Your task to perform on an android device: Go to privacy settings Image 0: 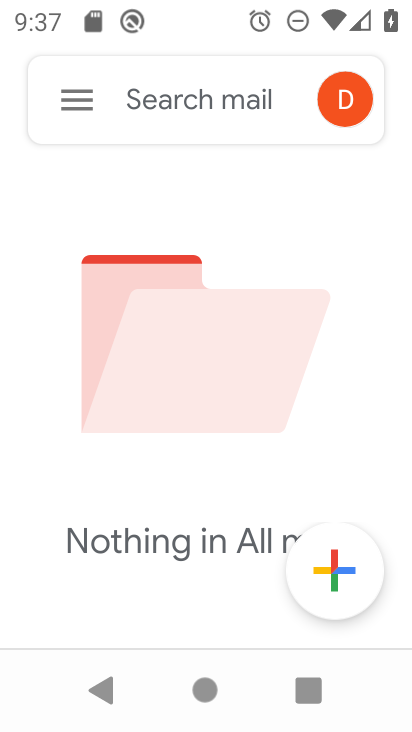
Step 0: press home button
Your task to perform on an android device: Go to privacy settings Image 1: 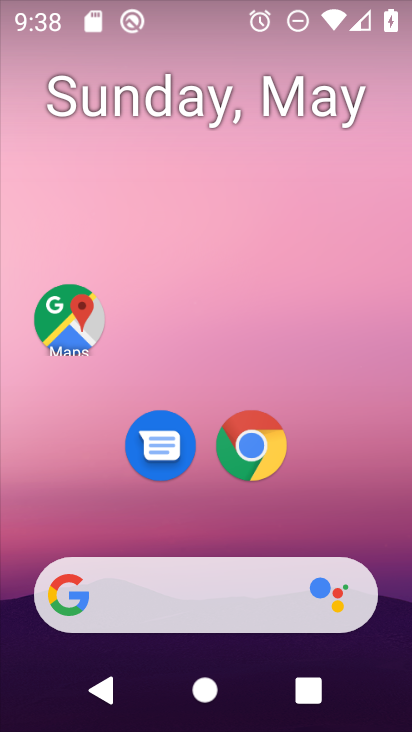
Step 1: drag from (338, 595) to (382, 179)
Your task to perform on an android device: Go to privacy settings Image 2: 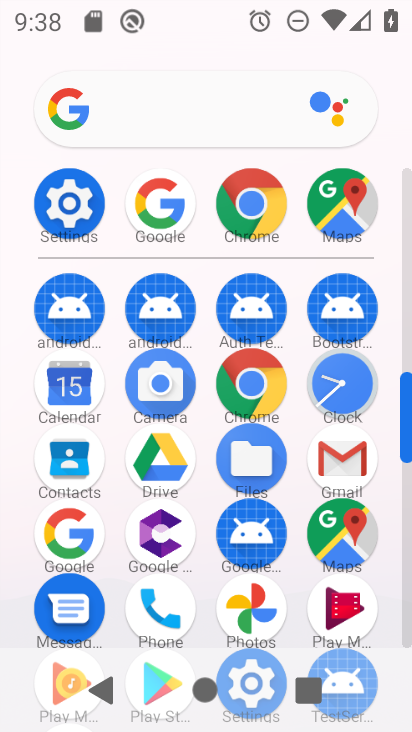
Step 2: click (82, 195)
Your task to perform on an android device: Go to privacy settings Image 3: 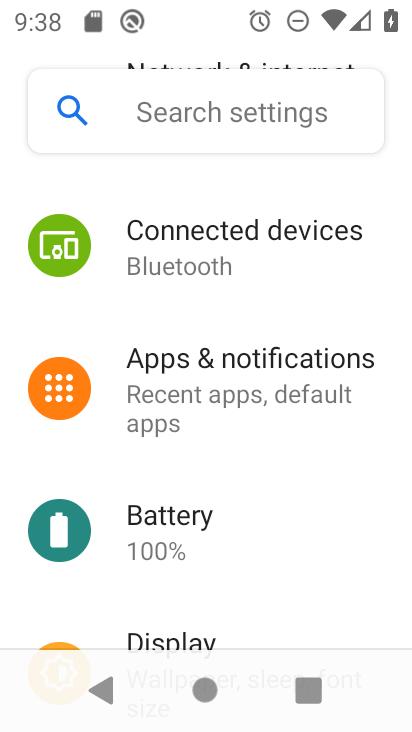
Step 3: drag from (210, 372) to (207, 297)
Your task to perform on an android device: Go to privacy settings Image 4: 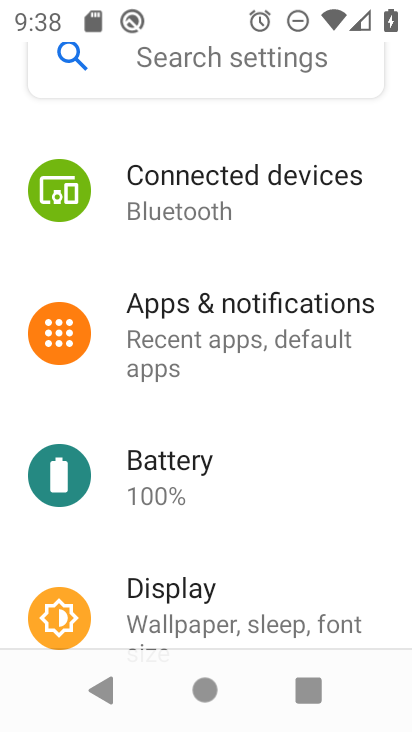
Step 4: drag from (212, 412) to (220, 294)
Your task to perform on an android device: Go to privacy settings Image 5: 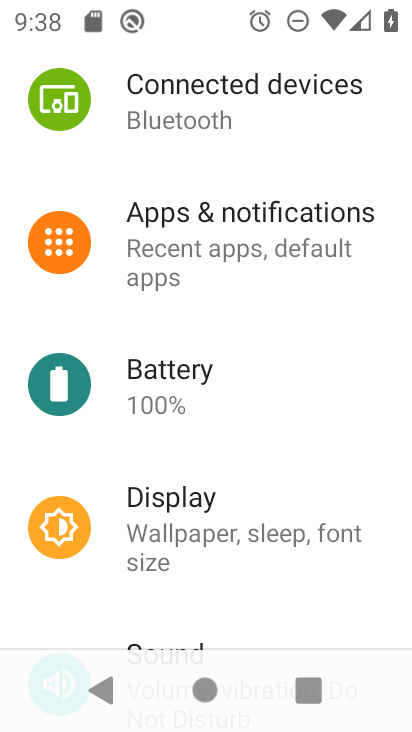
Step 5: drag from (224, 505) to (218, 352)
Your task to perform on an android device: Go to privacy settings Image 6: 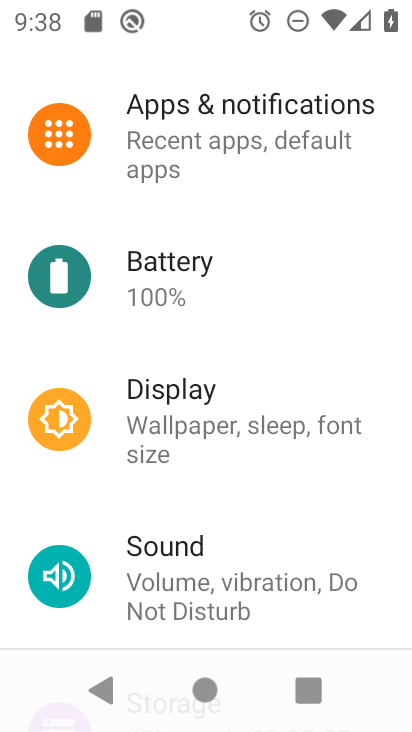
Step 6: drag from (223, 478) to (235, 292)
Your task to perform on an android device: Go to privacy settings Image 7: 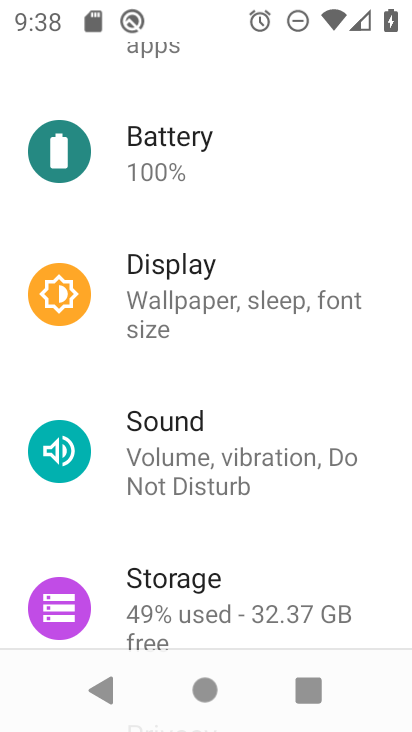
Step 7: drag from (227, 460) to (226, 354)
Your task to perform on an android device: Go to privacy settings Image 8: 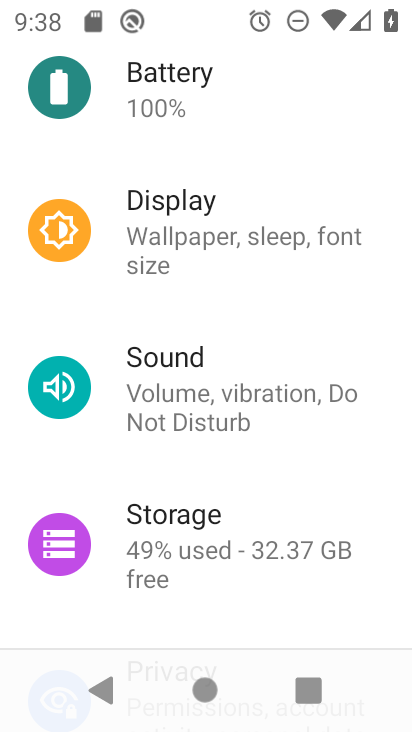
Step 8: drag from (225, 433) to (224, 353)
Your task to perform on an android device: Go to privacy settings Image 9: 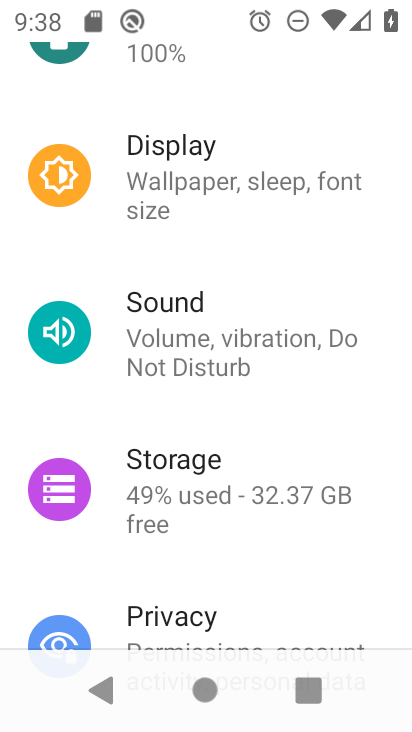
Step 9: drag from (232, 455) to (246, 263)
Your task to perform on an android device: Go to privacy settings Image 10: 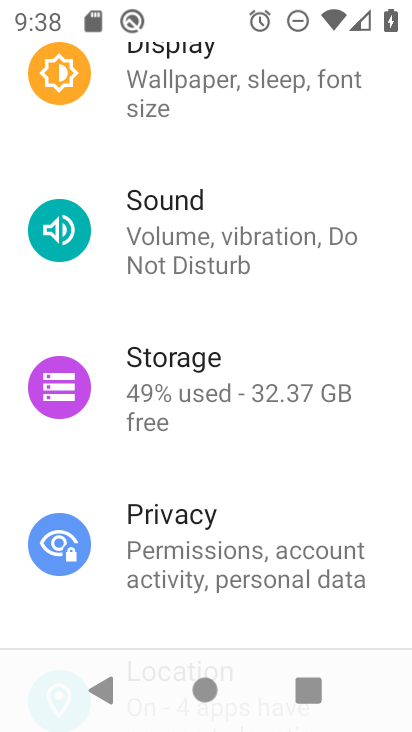
Step 10: click (215, 522)
Your task to perform on an android device: Go to privacy settings Image 11: 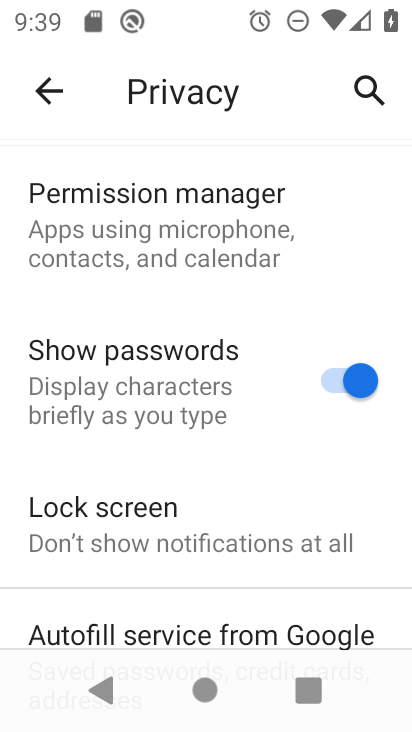
Step 11: task complete